Your task to perform on an android device: check android version Image 0: 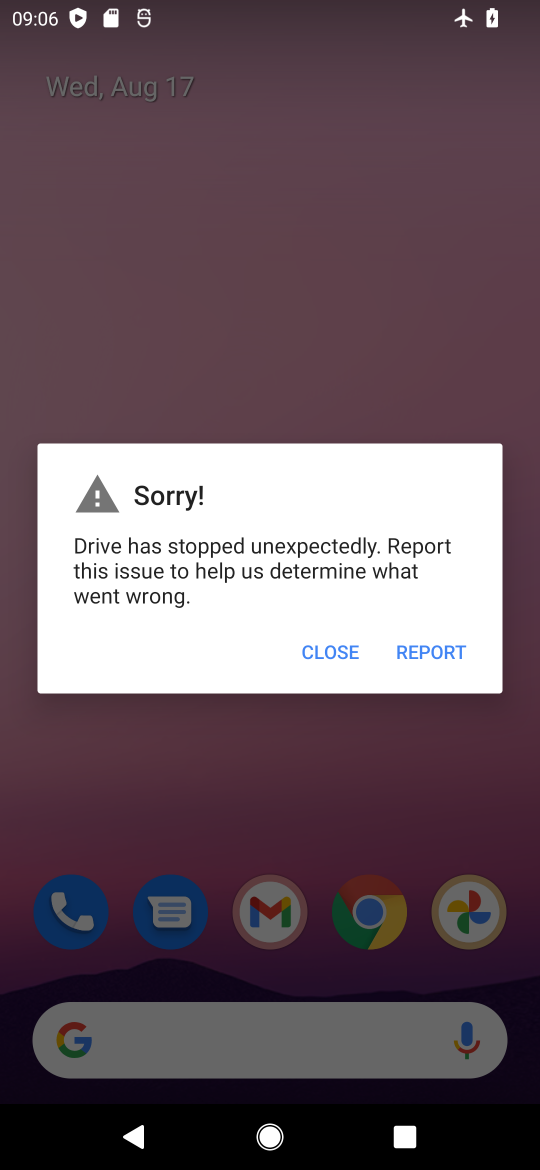
Step 0: drag from (278, 655) to (268, 307)
Your task to perform on an android device: check android version Image 1: 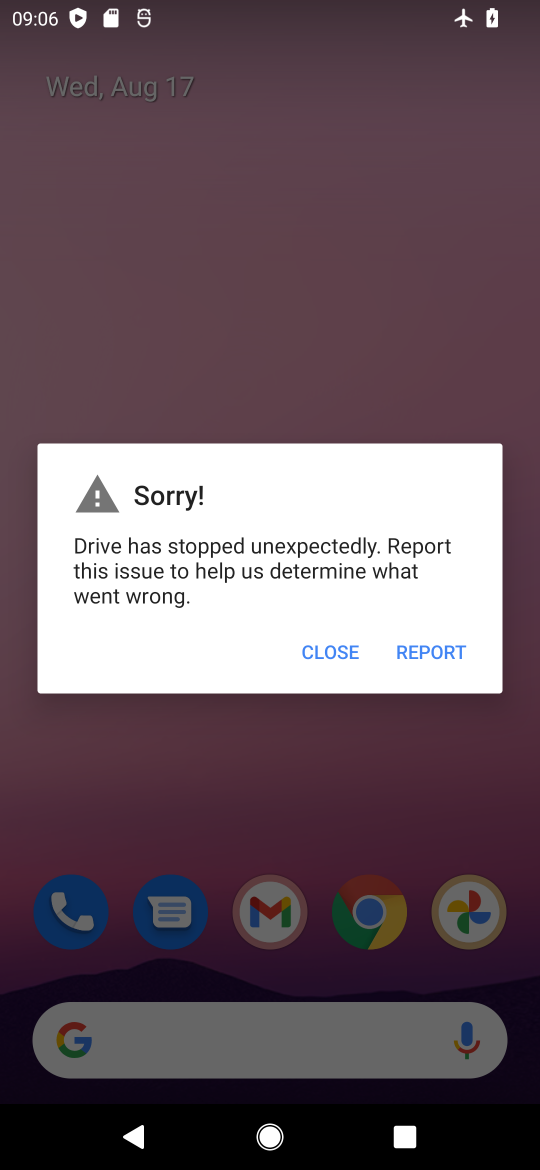
Step 1: click (337, 659)
Your task to perform on an android device: check android version Image 2: 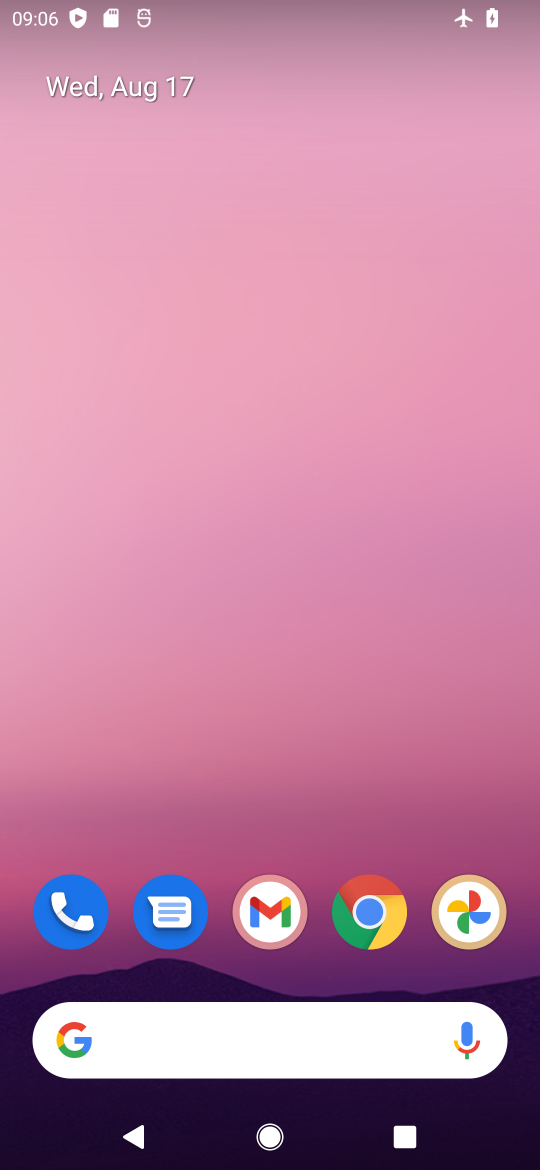
Step 2: drag from (227, 956) to (243, 379)
Your task to perform on an android device: check android version Image 3: 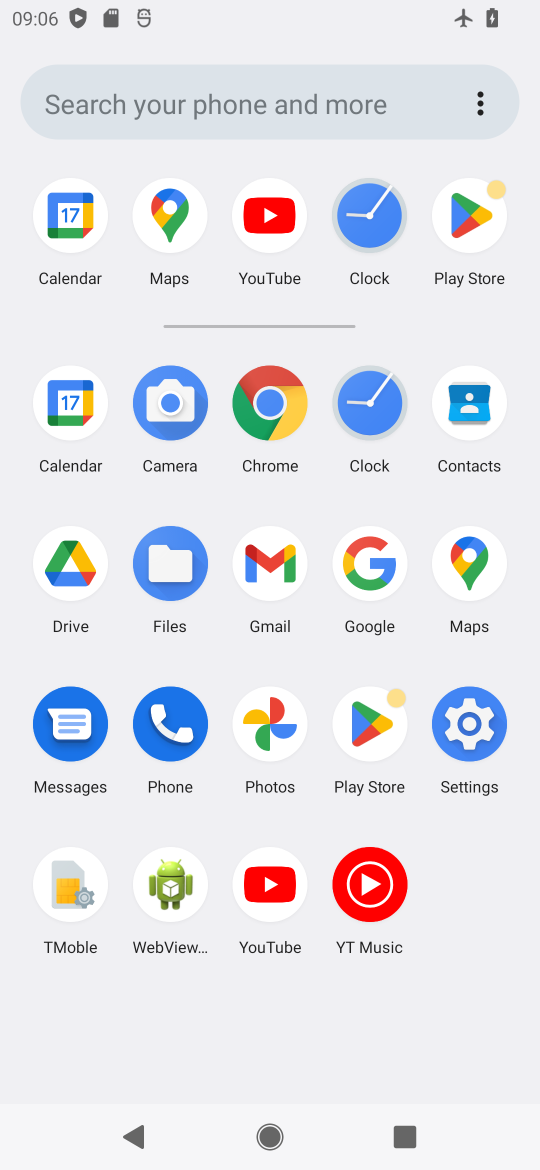
Step 3: click (472, 734)
Your task to perform on an android device: check android version Image 4: 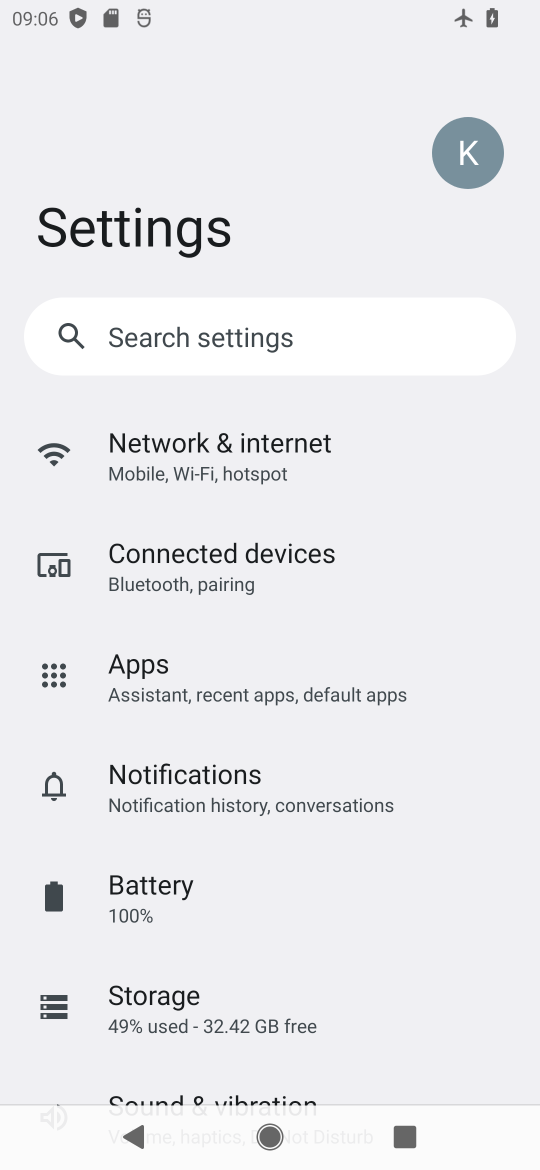
Step 4: task complete